Your task to perform on an android device: Go to privacy settings Image 0: 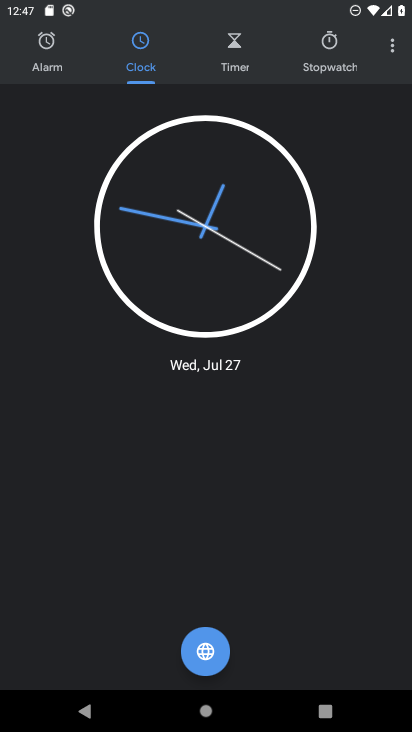
Step 0: press home button
Your task to perform on an android device: Go to privacy settings Image 1: 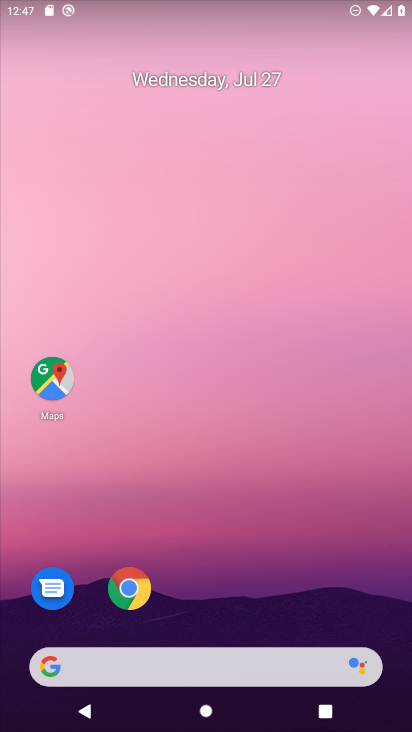
Step 1: click (218, 192)
Your task to perform on an android device: Go to privacy settings Image 2: 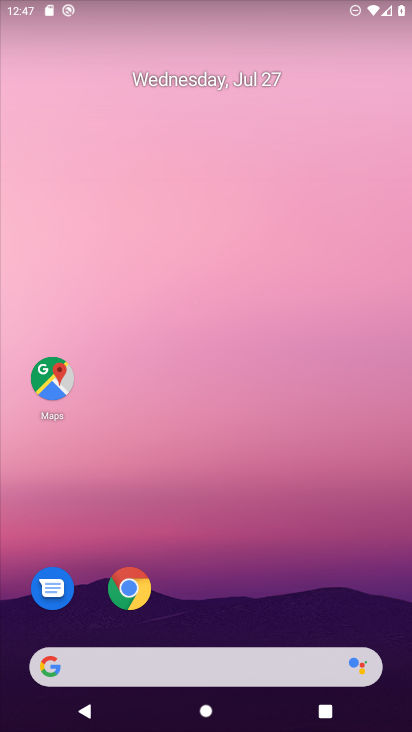
Step 2: drag from (52, 698) to (156, 52)
Your task to perform on an android device: Go to privacy settings Image 3: 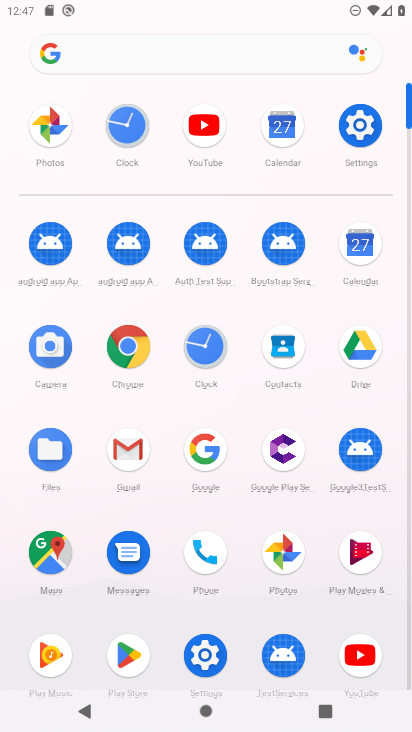
Step 3: click (193, 656)
Your task to perform on an android device: Go to privacy settings Image 4: 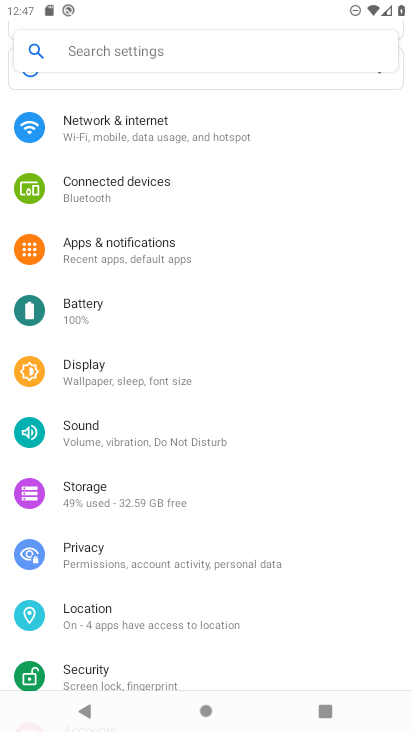
Step 4: click (118, 552)
Your task to perform on an android device: Go to privacy settings Image 5: 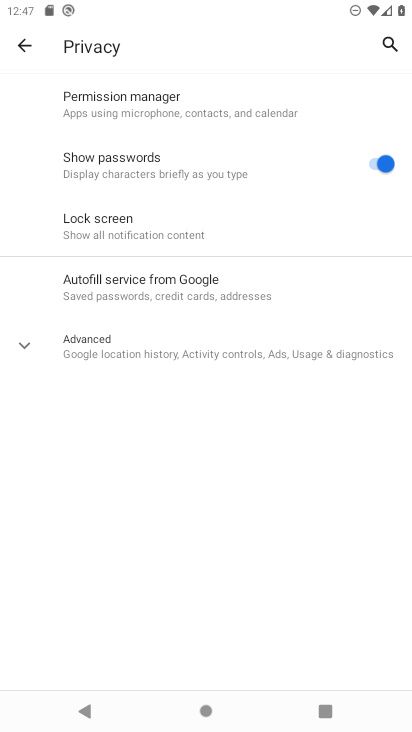
Step 5: task complete